Your task to perform on an android device: set the timer Image 0: 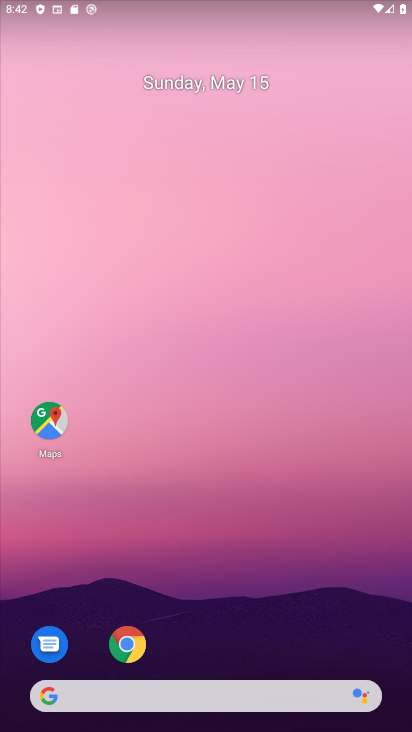
Step 0: drag from (222, 673) to (176, 84)
Your task to perform on an android device: set the timer Image 1: 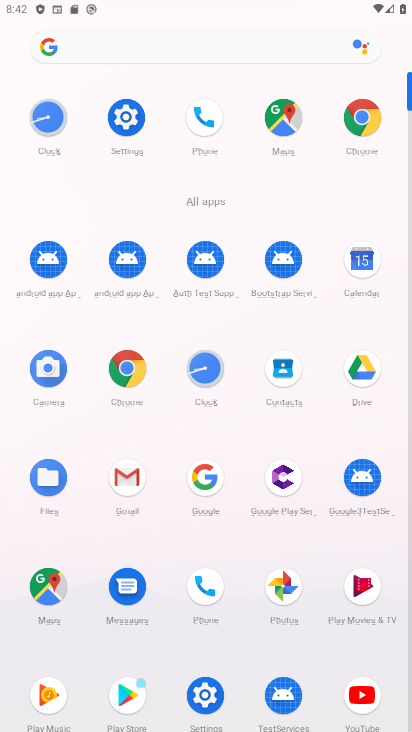
Step 1: click (202, 365)
Your task to perform on an android device: set the timer Image 2: 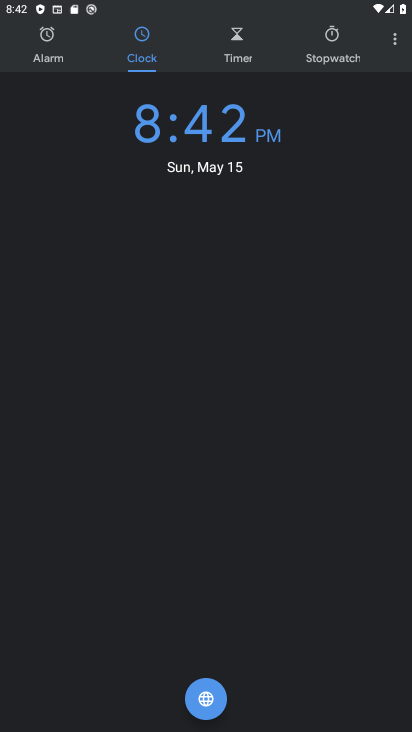
Step 2: click (232, 47)
Your task to perform on an android device: set the timer Image 3: 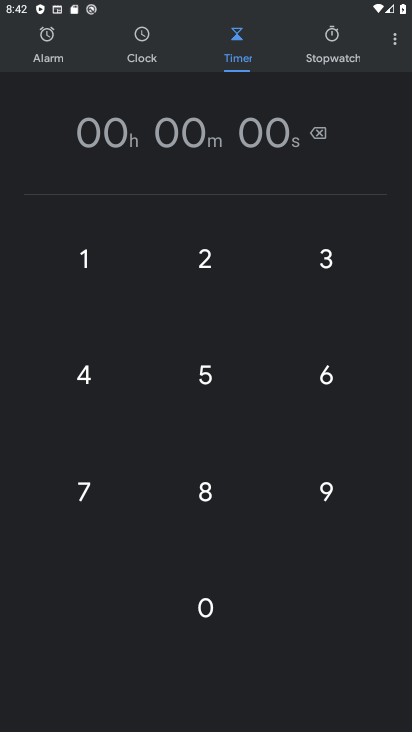
Step 3: click (205, 253)
Your task to perform on an android device: set the timer Image 4: 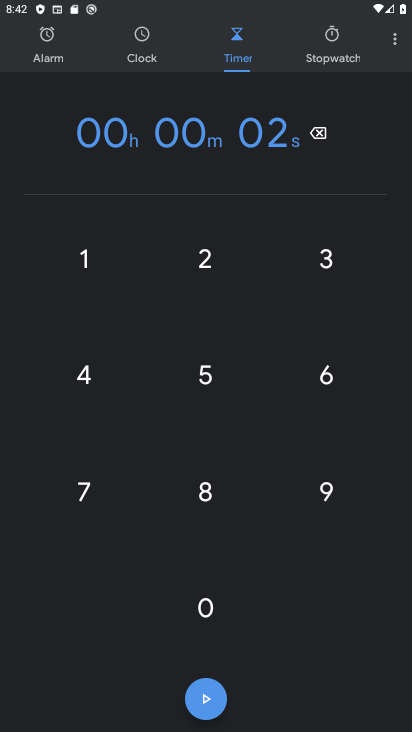
Step 4: click (207, 364)
Your task to perform on an android device: set the timer Image 5: 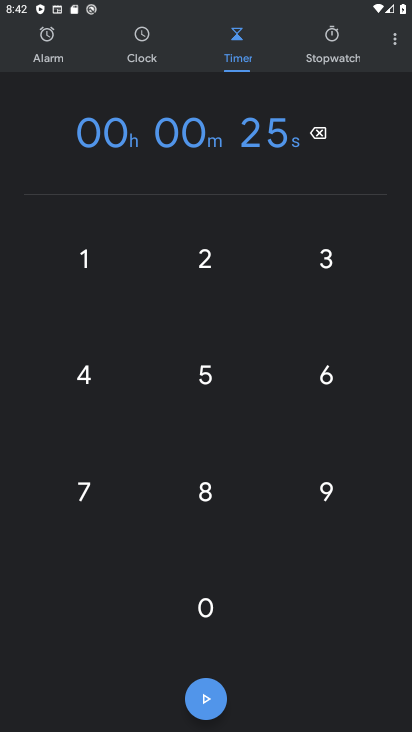
Step 5: task complete